Your task to perform on an android device: Go to Google Image 0: 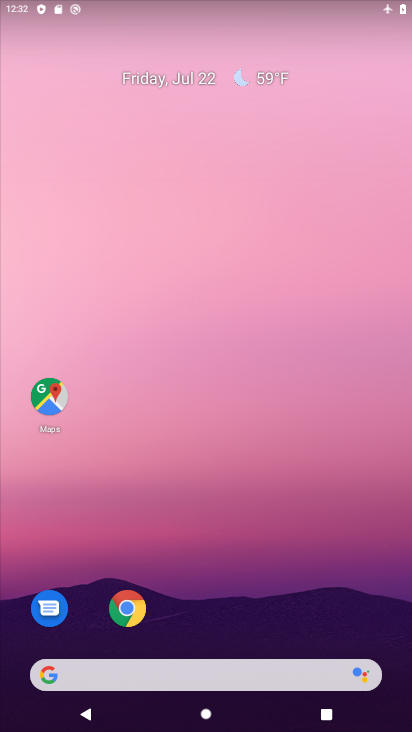
Step 0: click (55, 681)
Your task to perform on an android device: Go to Google Image 1: 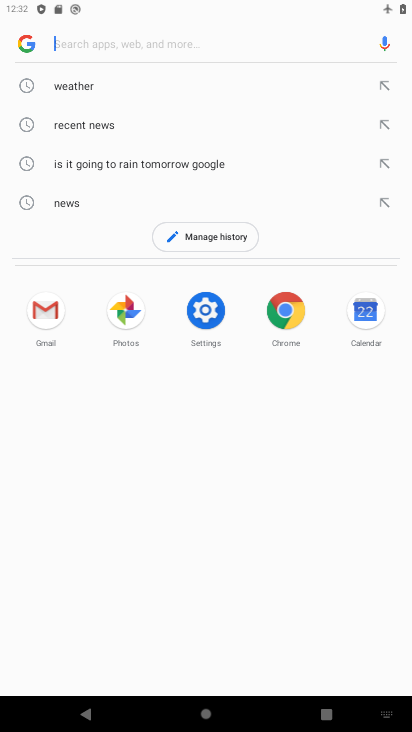
Step 1: click (22, 37)
Your task to perform on an android device: Go to Google Image 2: 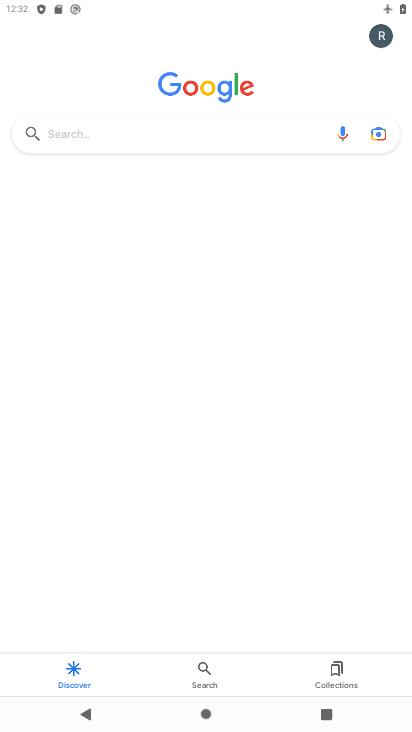
Step 2: task complete